Your task to perform on an android device: Search for vegetarian restaurants on Maps Image 0: 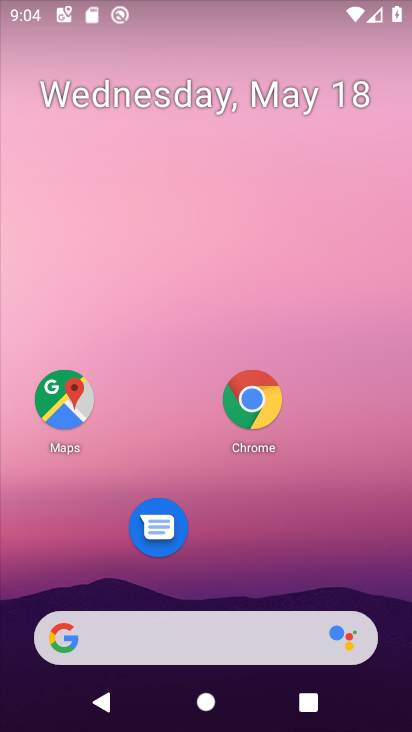
Step 0: click (48, 397)
Your task to perform on an android device: Search for vegetarian restaurants on Maps Image 1: 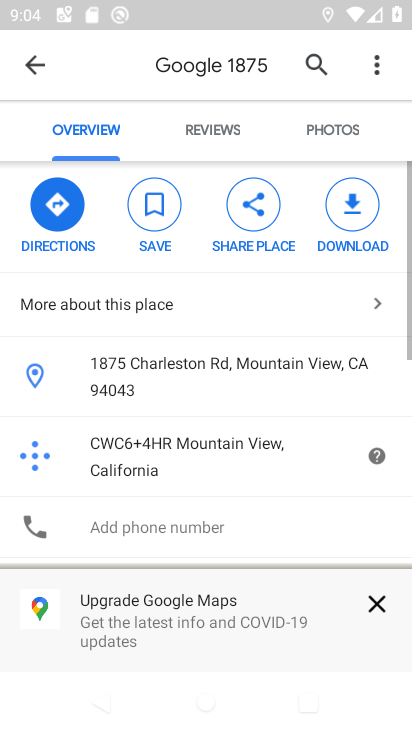
Step 1: click (34, 69)
Your task to perform on an android device: Search for vegetarian restaurants on Maps Image 2: 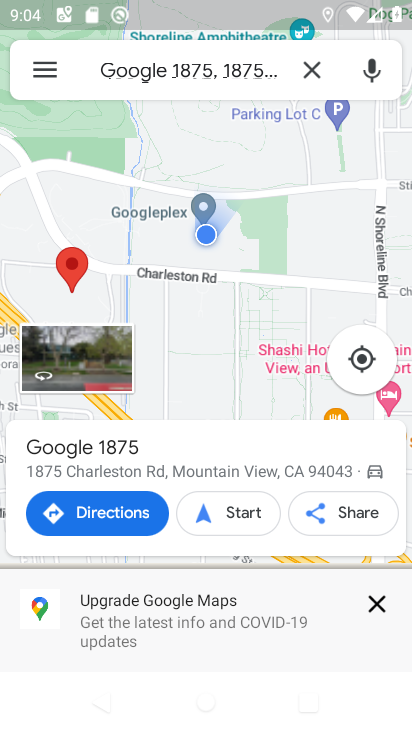
Step 2: click (308, 71)
Your task to perform on an android device: Search for vegetarian restaurants on Maps Image 3: 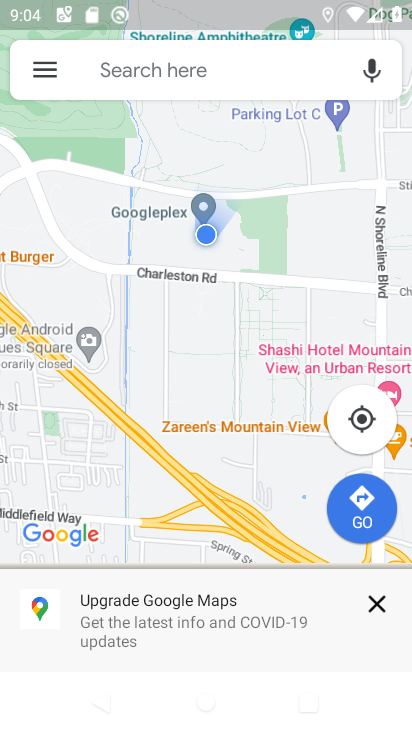
Step 3: click (177, 72)
Your task to perform on an android device: Search for vegetarian restaurants on Maps Image 4: 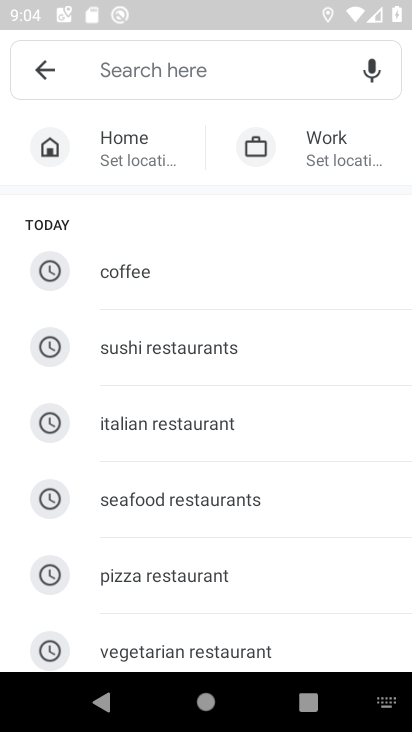
Step 4: click (185, 650)
Your task to perform on an android device: Search for vegetarian restaurants on Maps Image 5: 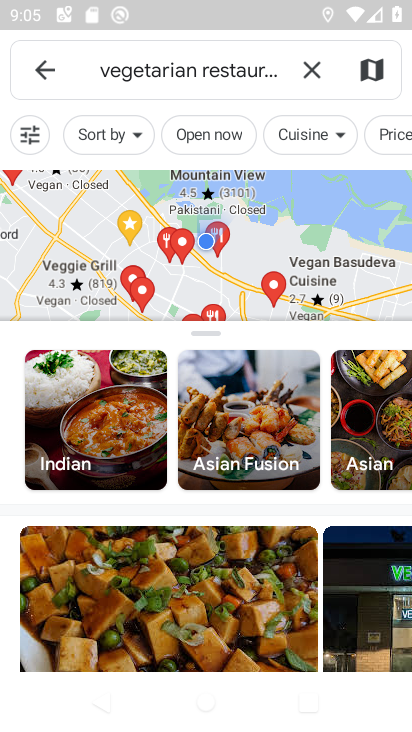
Step 5: task complete